Your task to perform on an android device: What's on my calendar tomorrow? Image 0: 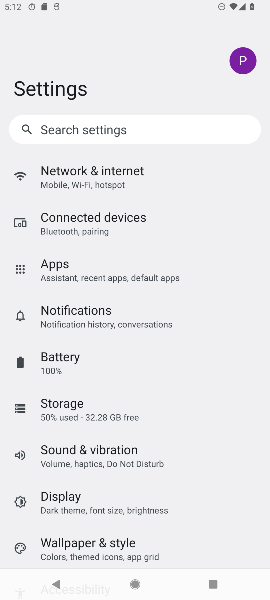
Step 0: press back button
Your task to perform on an android device: What's on my calendar tomorrow? Image 1: 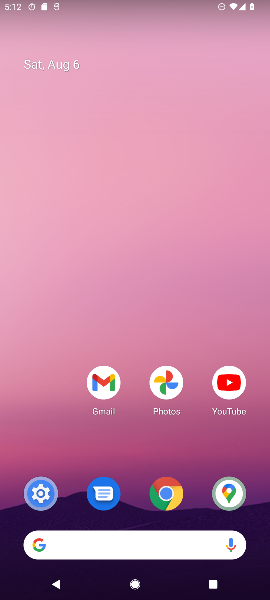
Step 1: drag from (192, 531) to (134, 202)
Your task to perform on an android device: What's on my calendar tomorrow? Image 2: 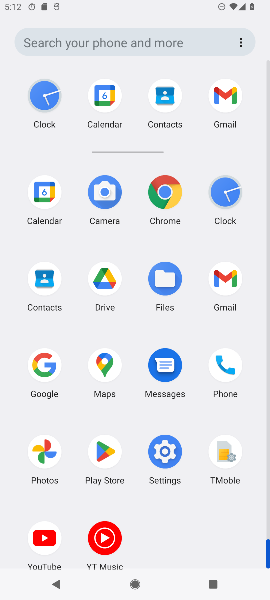
Step 2: click (100, 103)
Your task to perform on an android device: What's on my calendar tomorrow? Image 3: 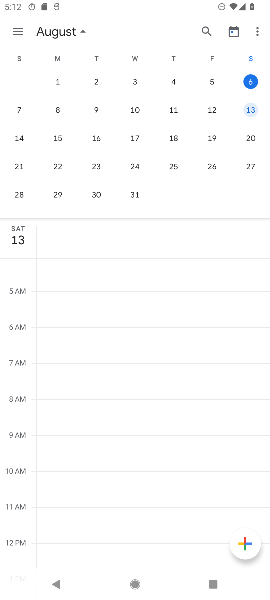
Step 3: drag from (224, 111) to (28, 160)
Your task to perform on an android device: What's on my calendar tomorrow? Image 4: 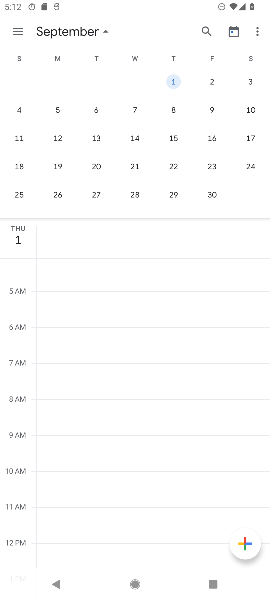
Step 4: drag from (74, 133) to (268, 137)
Your task to perform on an android device: What's on my calendar tomorrow? Image 5: 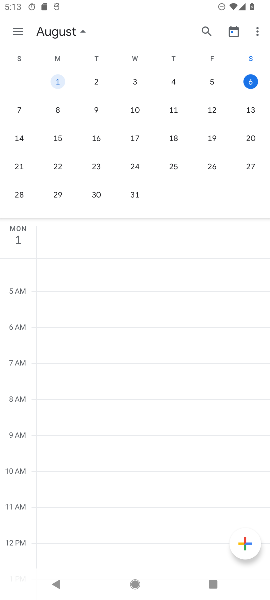
Step 5: click (24, 108)
Your task to perform on an android device: What's on my calendar tomorrow? Image 6: 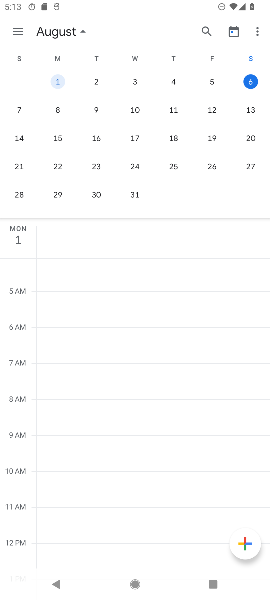
Step 6: click (21, 110)
Your task to perform on an android device: What's on my calendar tomorrow? Image 7: 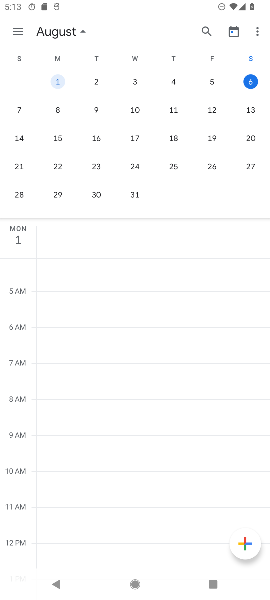
Step 7: click (21, 110)
Your task to perform on an android device: What's on my calendar tomorrow? Image 8: 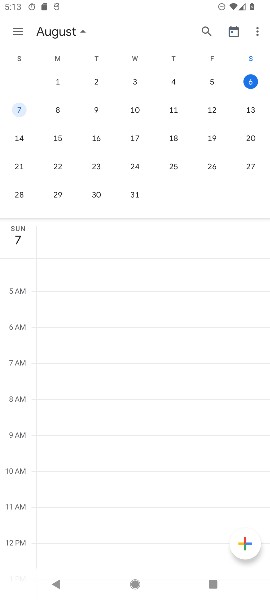
Step 8: task complete